Your task to perform on an android device: open app "DoorDash - Dasher" Image 0: 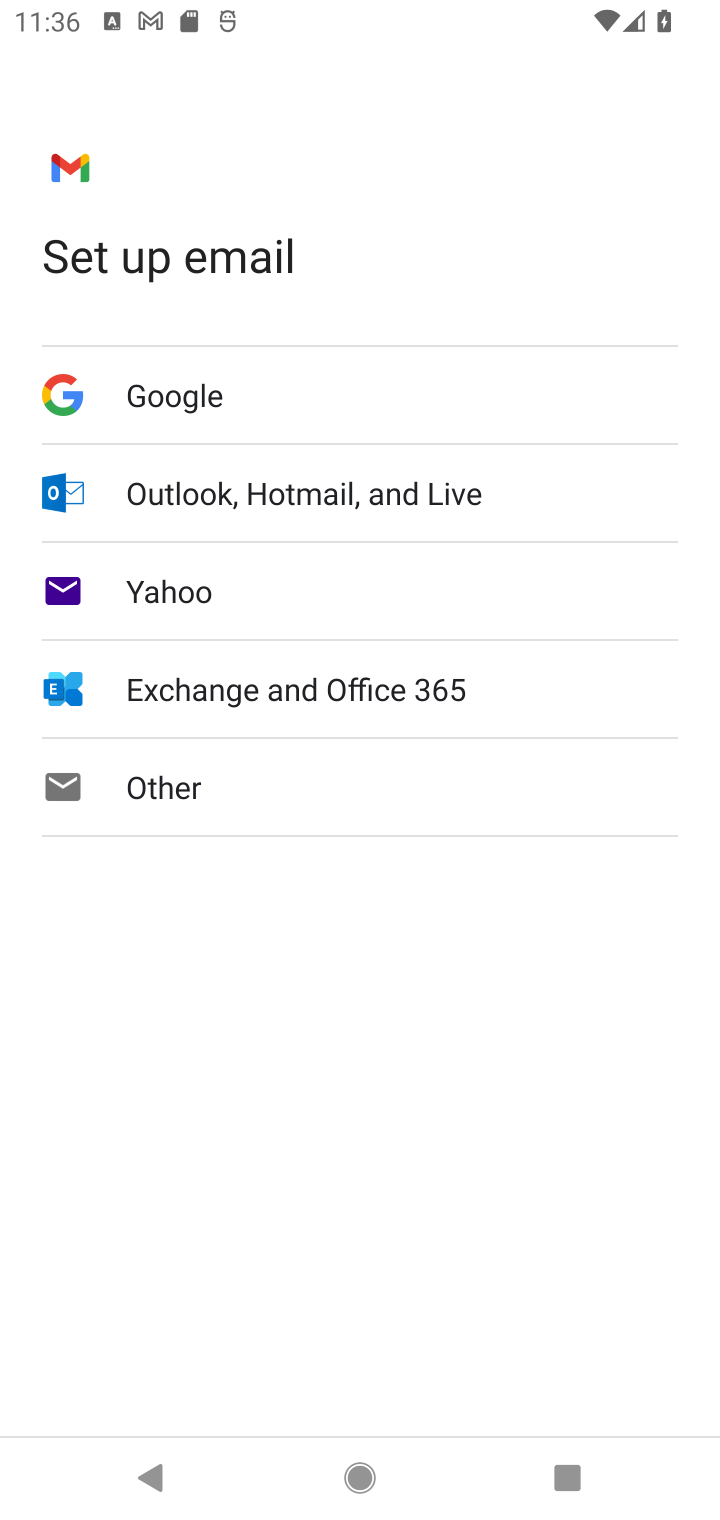
Step 0: press home button
Your task to perform on an android device: open app "DoorDash - Dasher" Image 1: 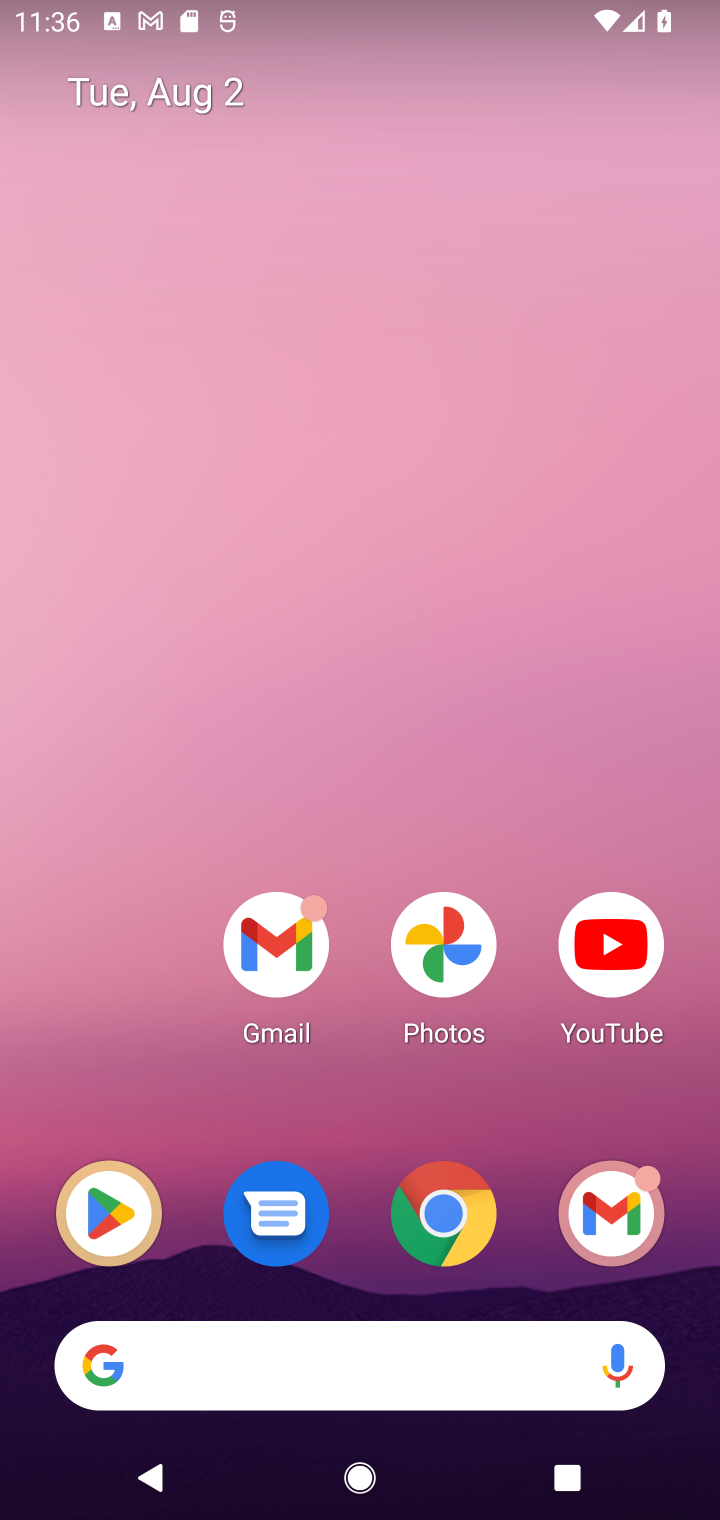
Step 1: click (101, 1215)
Your task to perform on an android device: open app "DoorDash - Dasher" Image 2: 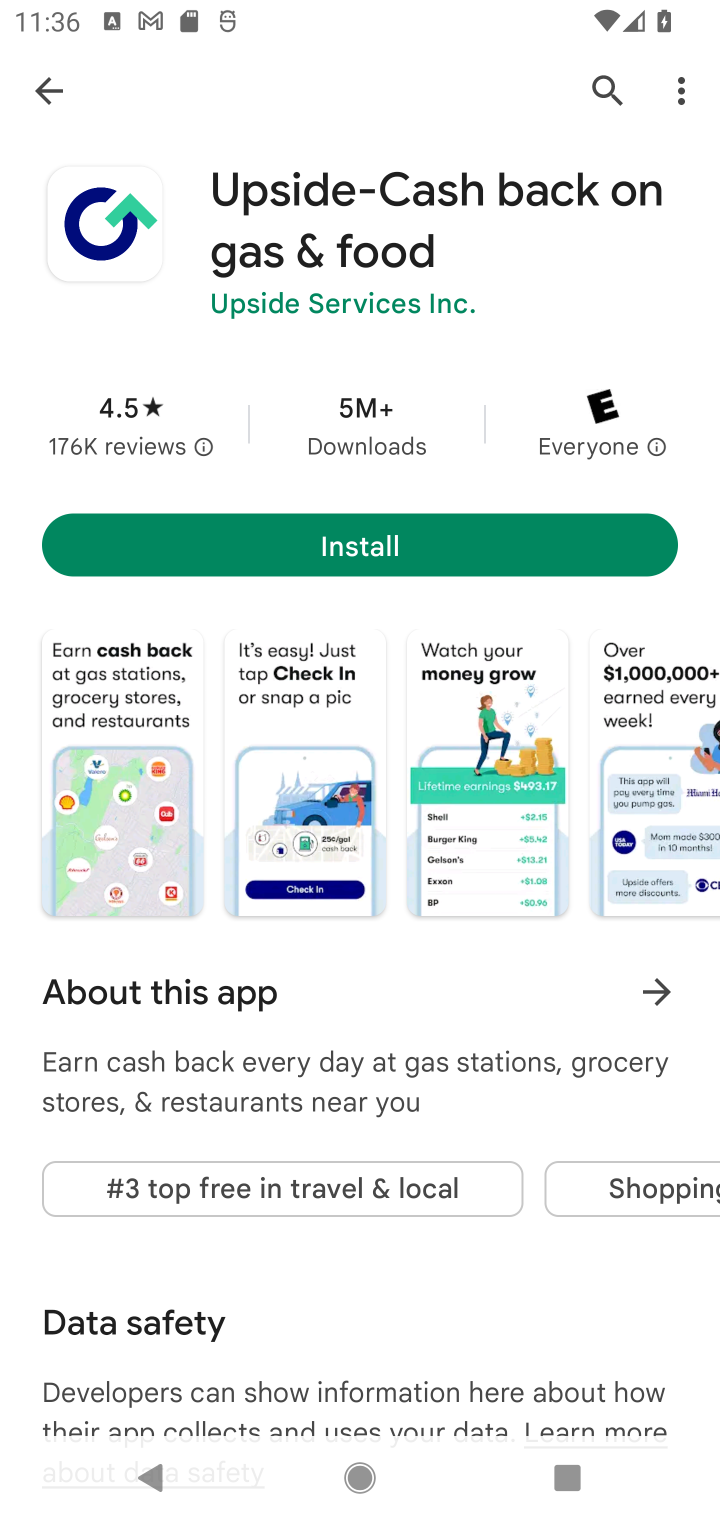
Step 2: click (57, 95)
Your task to perform on an android device: open app "DoorDash - Dasher" Image 3: 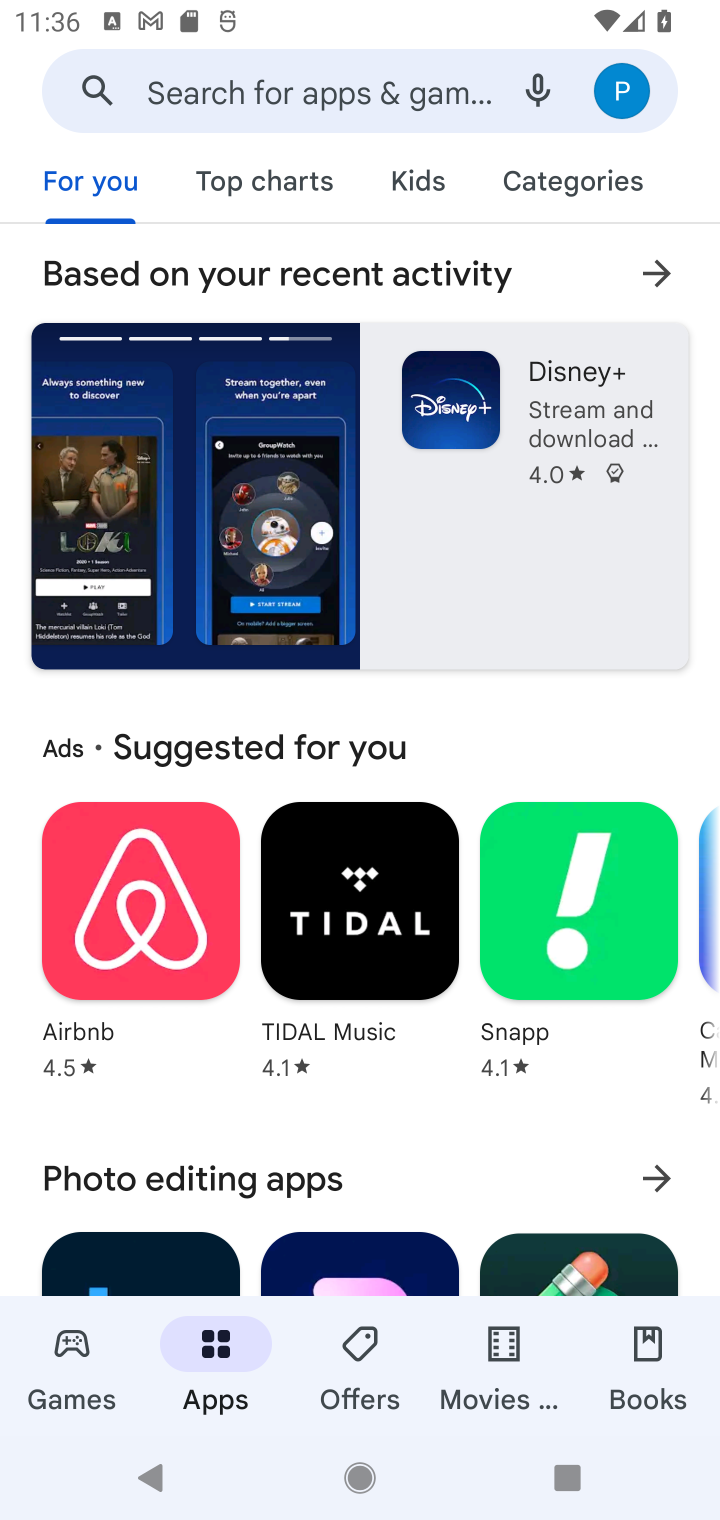
Step 3: click (341, 94)
Your task to perform on an android device: open app "DoorDash - Dasher" Image 4: 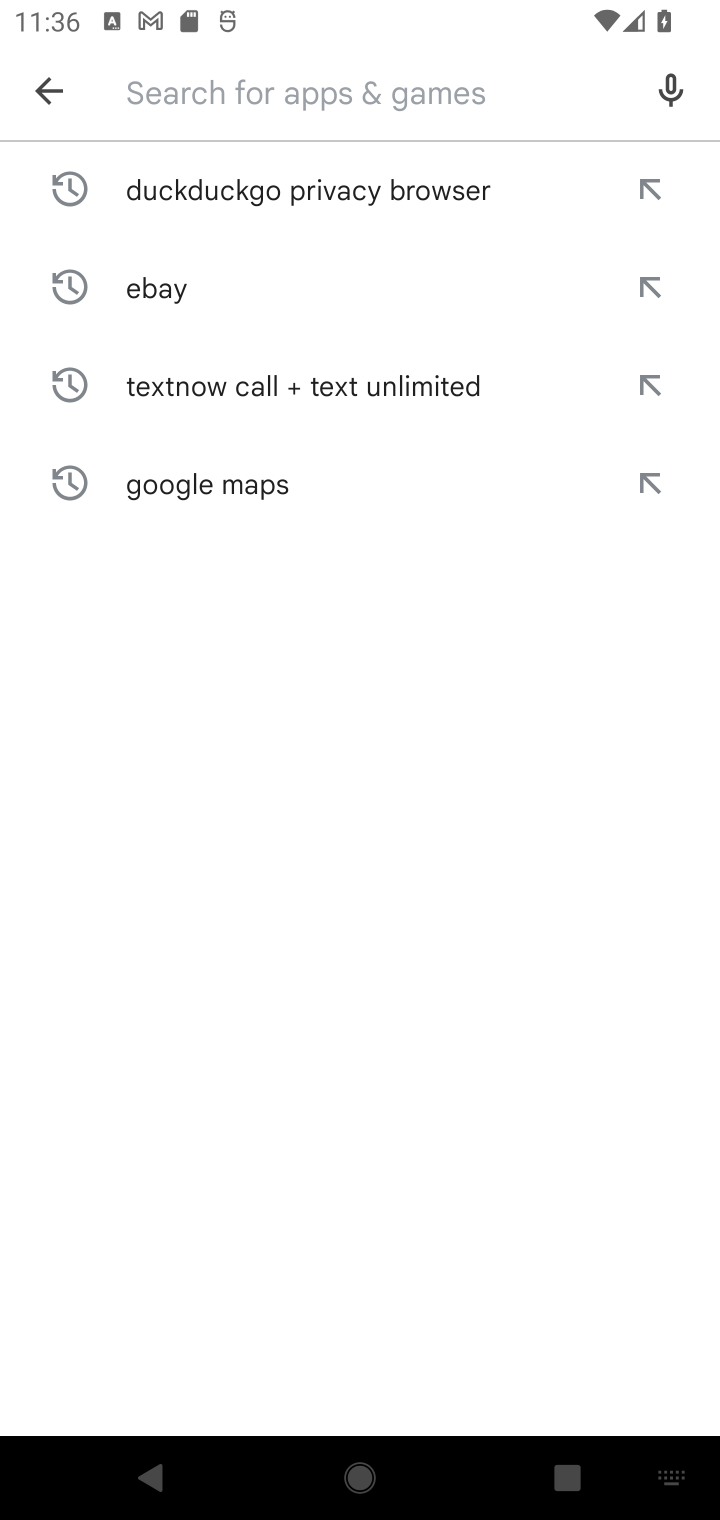
Step 4: type "DoorDash - Dasher"
Your task to perform on an android device: open app "DoorDash - Dasher" Image 5: 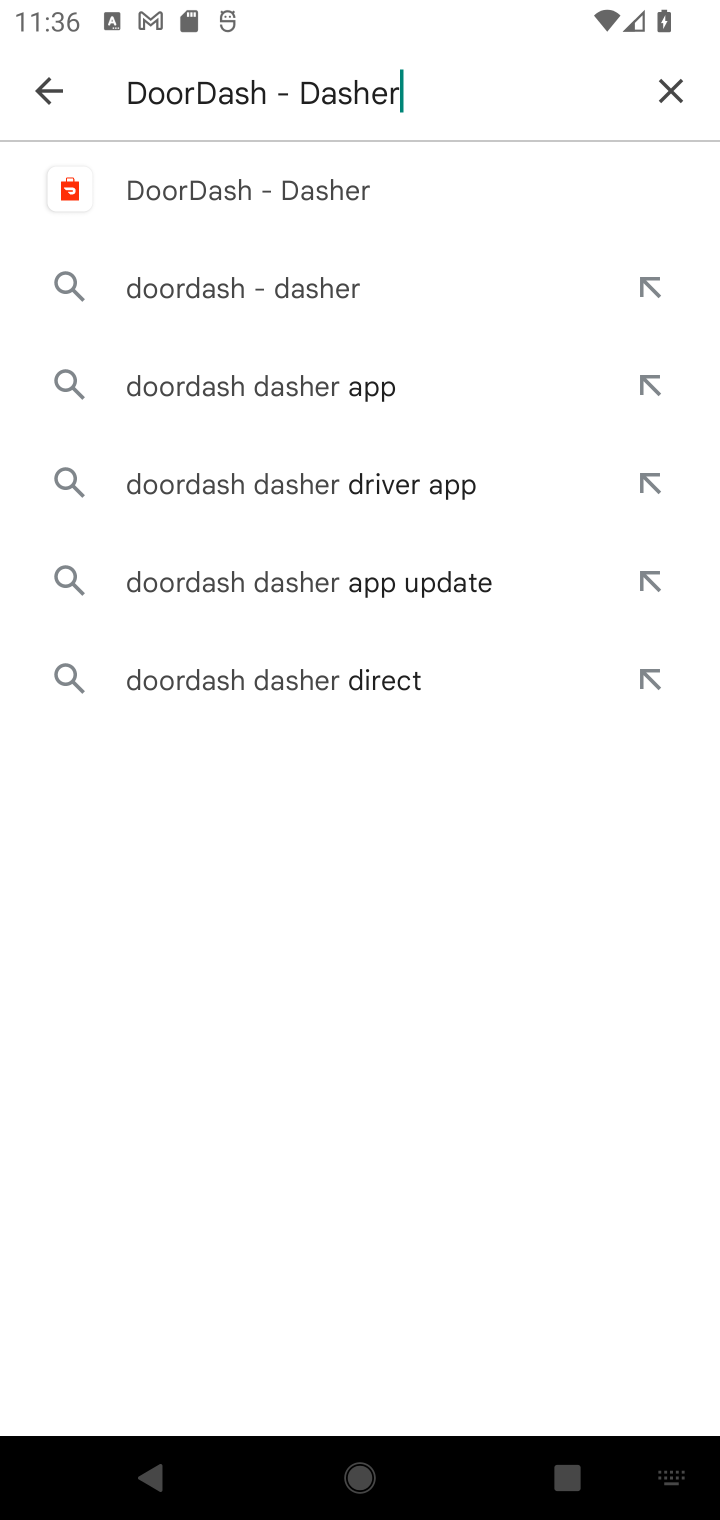
Step 5: click (366, 179)
Your task to perform on an android device: open app "DoorDash - Dasher" Image 6: 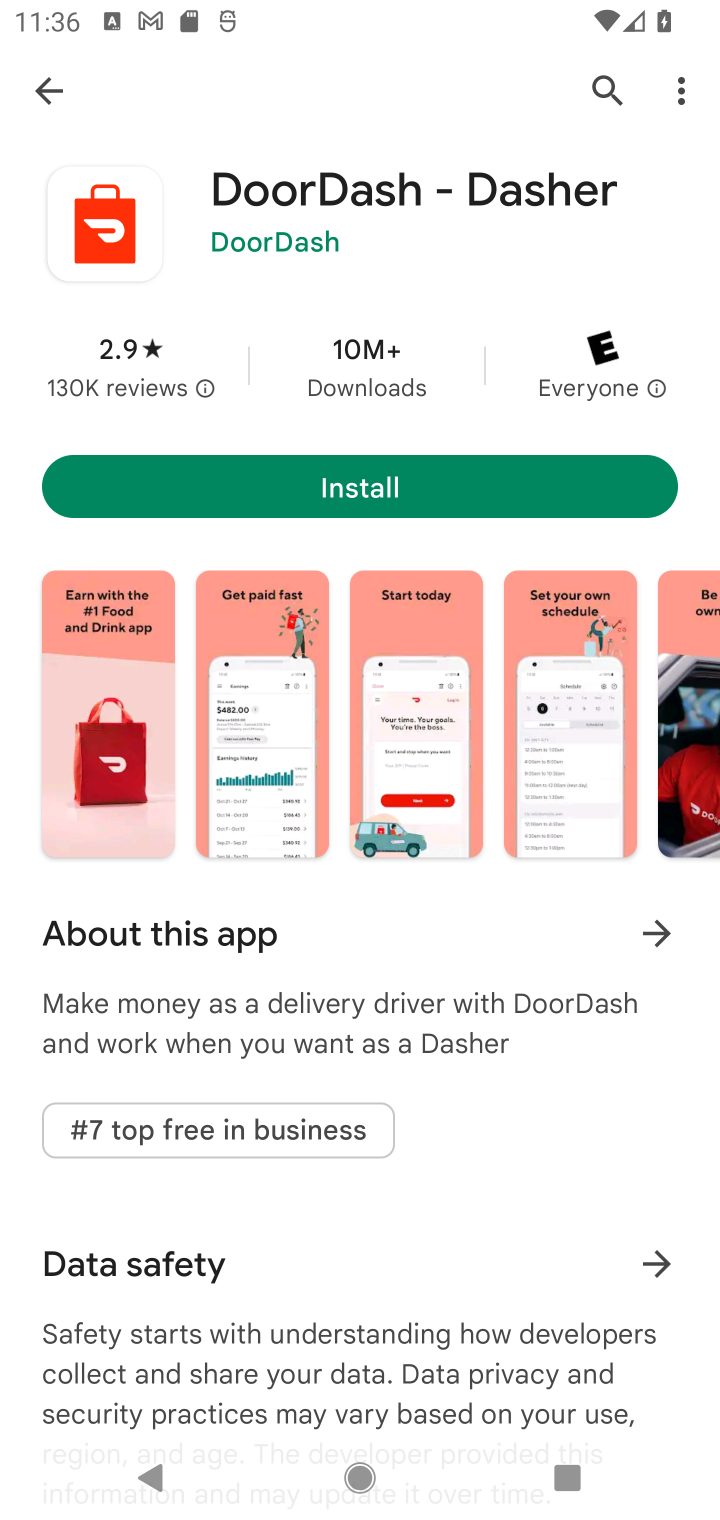
Step 6: click (378, 472)
Your task to perform on an android device: open app "DoorDash - Dasher" Image 7: 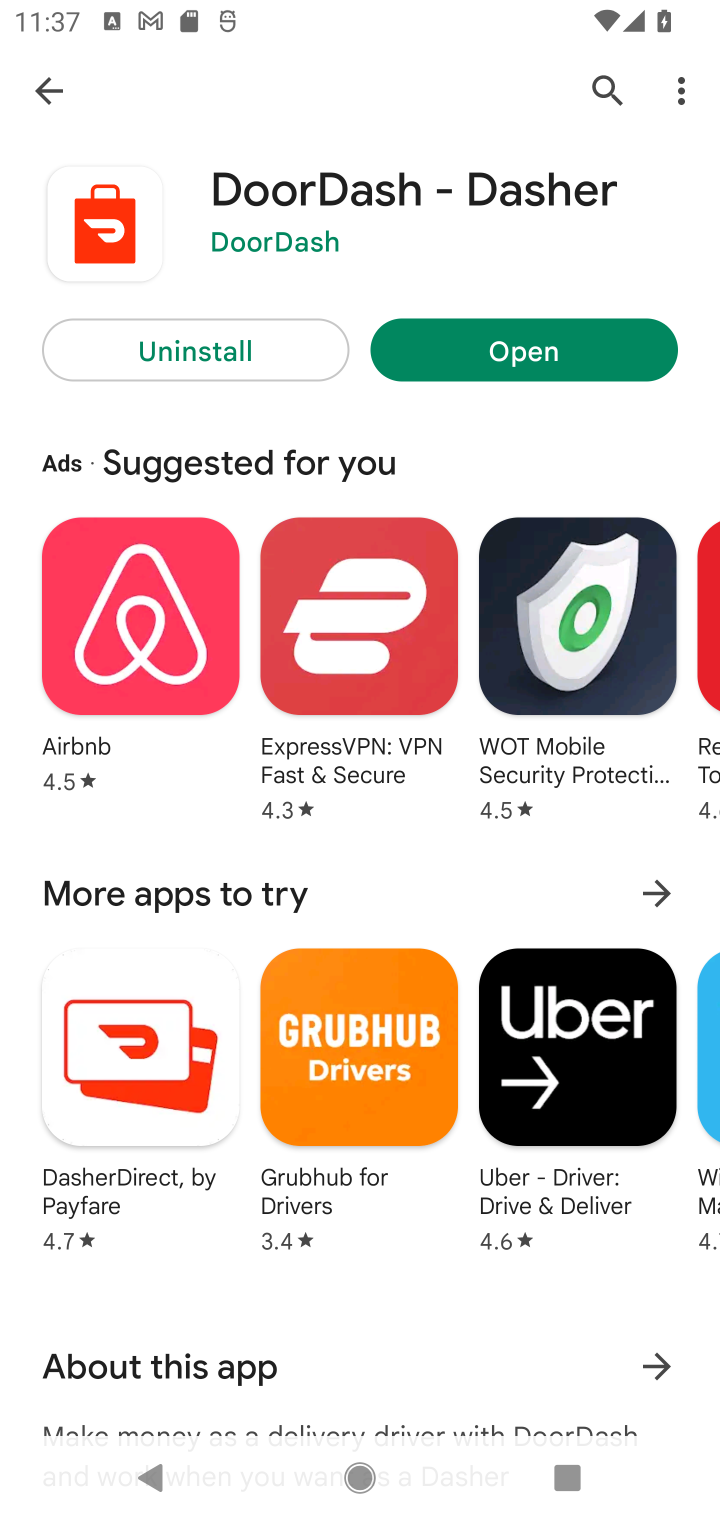
Step 7: click (442, 362)
Your task to perform on an android device: open app "DoorDash - Dasher" Image 8: 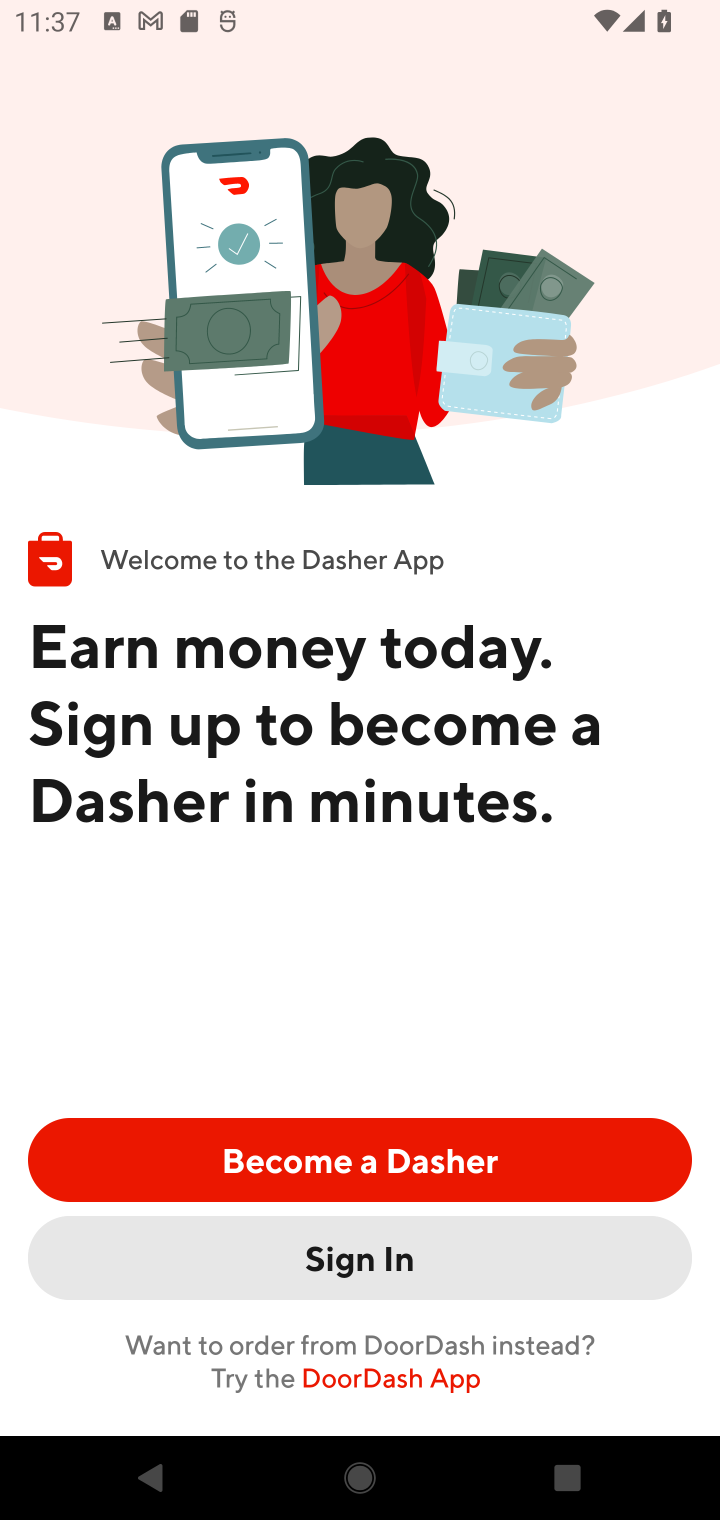
Step 8: task complete